Your task to perform on an android device: turn off improve location accuracy Image 0: 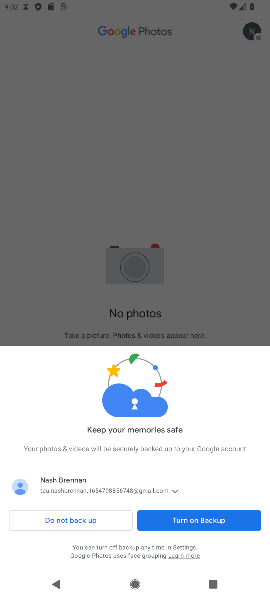
Step 0: press home button
Your task to perform on an android device: turn off improve location accuracy Image 1: 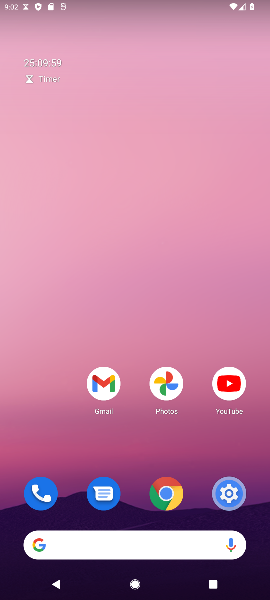
Step 1: drag from (160, 387) to (130, 0)
Your task to perform on an android device: turn off improve location accuracy Image 2: 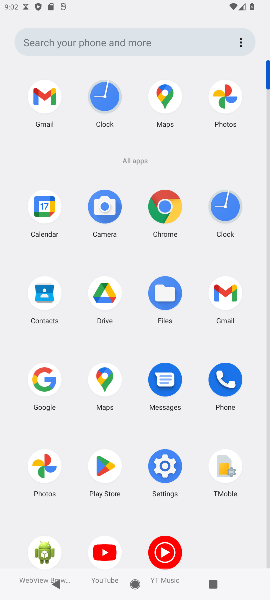
Step 2: click (162, 470)
Your task to perform on an android device: turn off improve location accuracy Image 3: 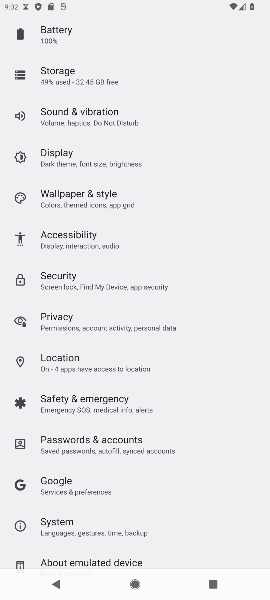
Step 3: click (77, 369)
Your task to perform on an android device: turn off improve location accuracy Image 4: 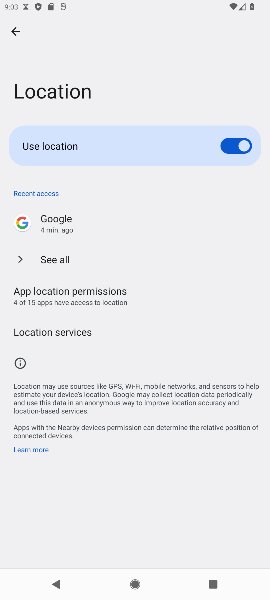
Step 4: task complete